Your task to perform on an android device: turn on improve location accuracy Image 0: 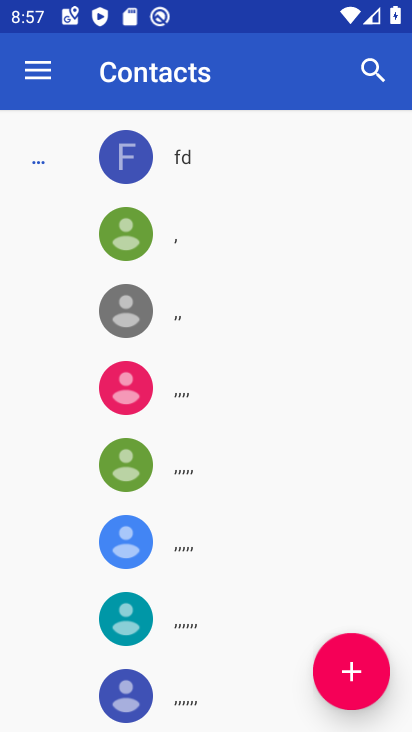
Step 0: press home button
Your task to perform on an android device: turn on improve location accuracy Image 1: 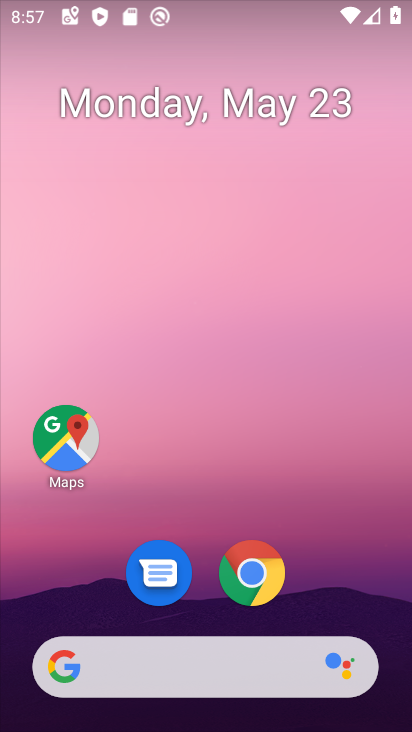
Step 1: drag from (375, 596) to (354, 206)
Your task to perform on an android device: turn on improve location accuracy Image 2: 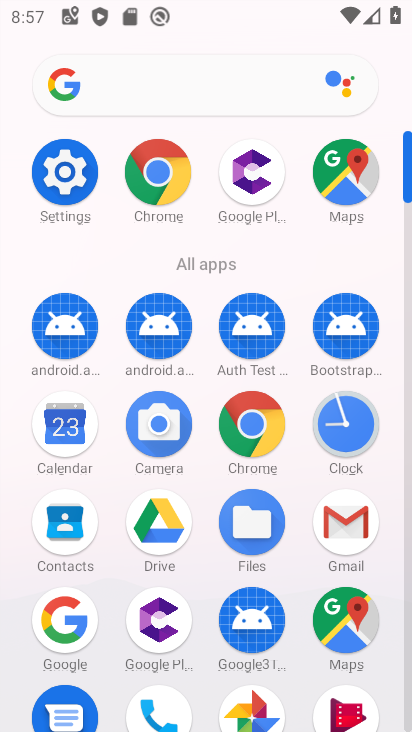
Step 2: click (66, 191)
Your task to perform on an android device: turn on improve location accuracy Image 3: 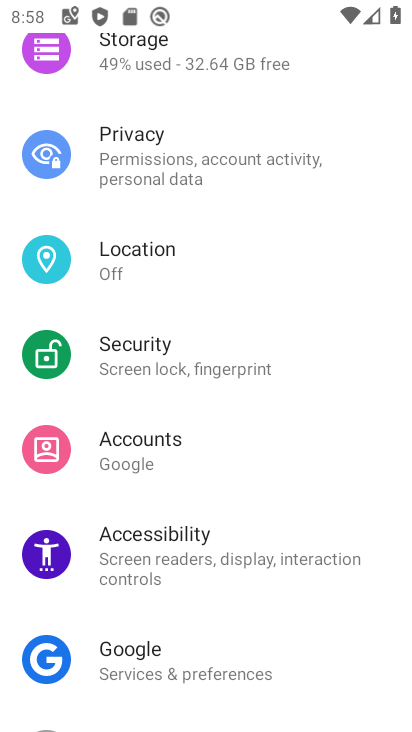
Step 3: drag from (355, 621) to (367, 546)
Your task to perform on an android device: turn on improve location accuracy Image 4: 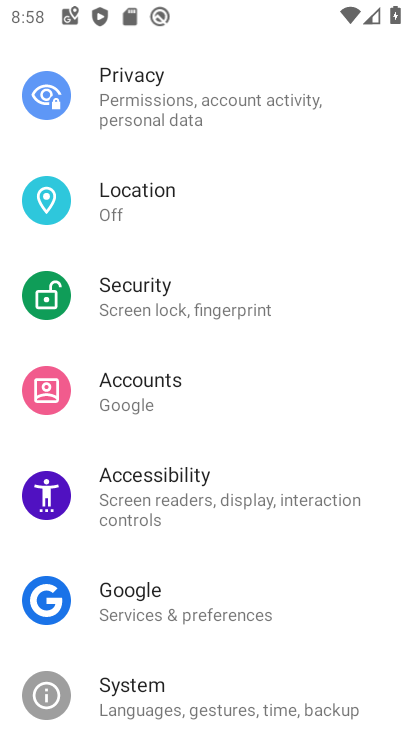
Step 4: drag from (371, 623) to (376, 537)
Your task to perform on an android device: turn on improve location accuracy Image 5: 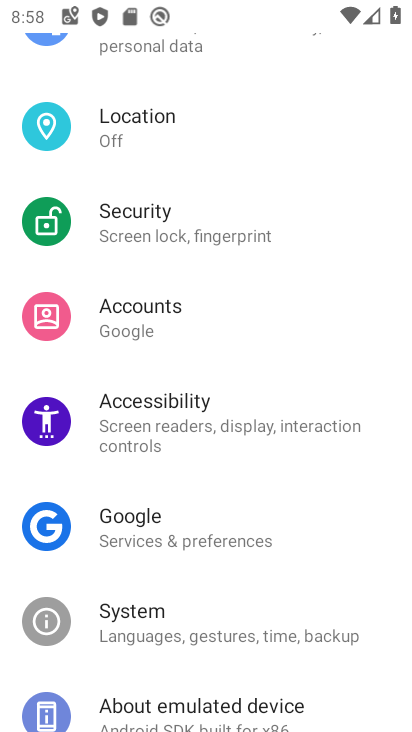
Step 5: drag from (348, 664) to (365, 563)
Your task to perform on an android device: turn on improve location accuracy Image 6: 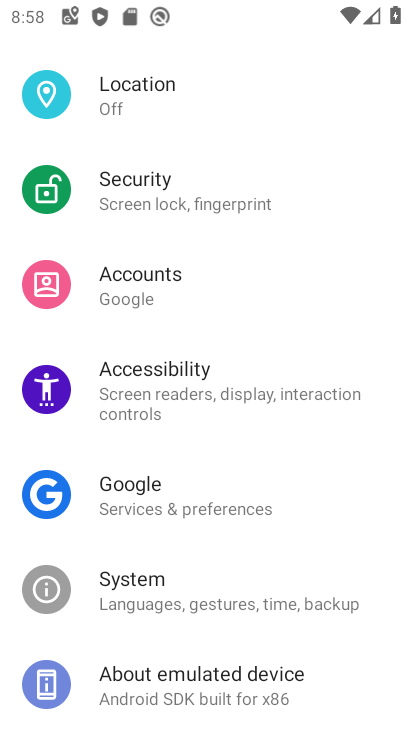
Step 6: drag from (358, 639) to (360, 547)
Your task to perform on an android device: turn on improve location accuracy Image 7: 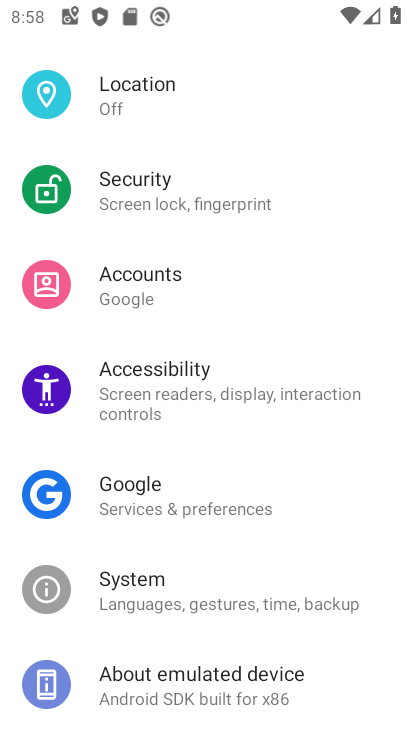
Step 7: drag from (358, 467) to (346, 544)
Your task to perform on an android device: turn on improve location accuracy Image 8: 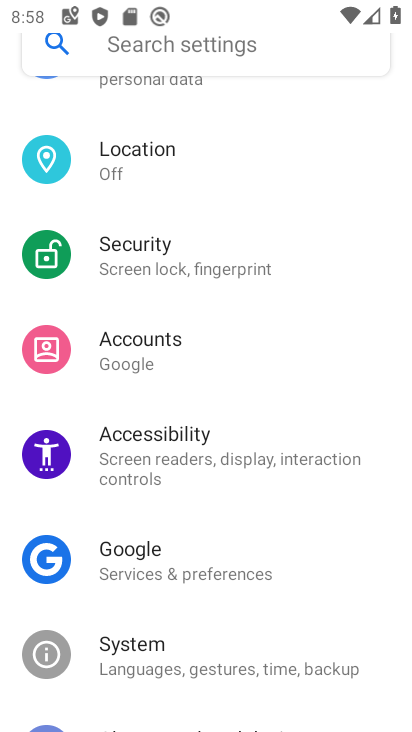
Step 8: drag from (366, 404) to (372, 472)
Your task to perform on an android device: turn on improve location accuracy Image 9: 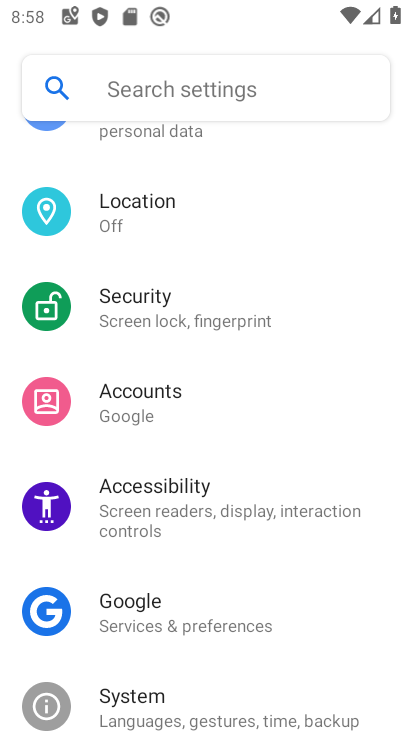
Step 9: drag from (368, 360) to (369, 461)
Your task to perform on an android device: turn on improve location accuracy Image 10: 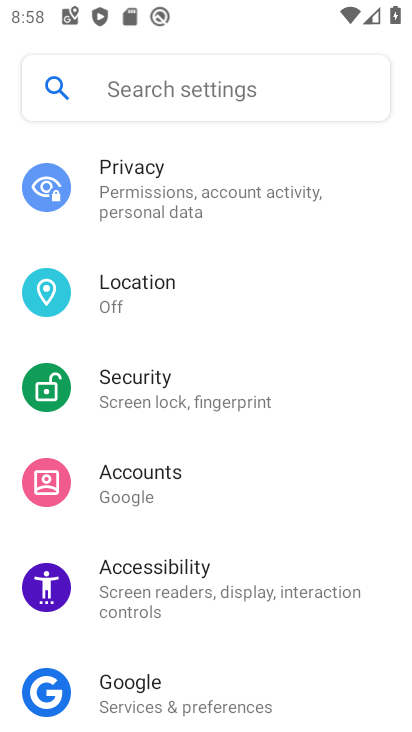
Step 10: drag from (361, 382) to (358, 470)
Your task to perform on an android device: turn on improve location accuracy Image 11: 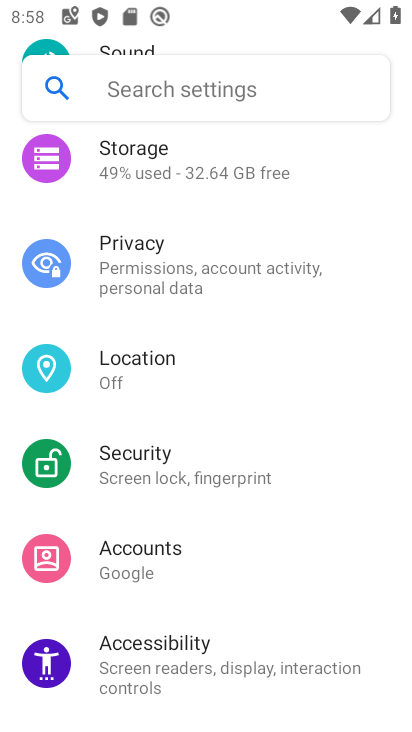
Step 11: drag from (357, 352) to (342, 475)
Your task to perform on an android device: turn on improve location accuracy Image 12: 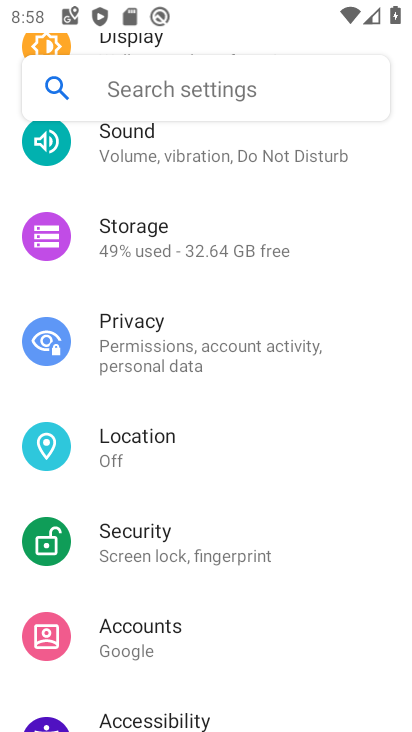
Step 12: drag from (341, 413) to (331, 486)
Your task to perform on an android device: turn on improve location accuracy Image 13: 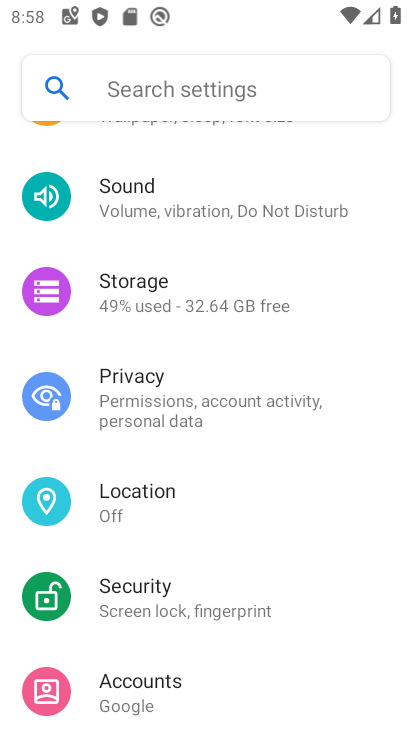
Step 13: drag from (330, 404) to (330, 502)
Your task to perform on an android device: turn on improve location accuracy Image 14: 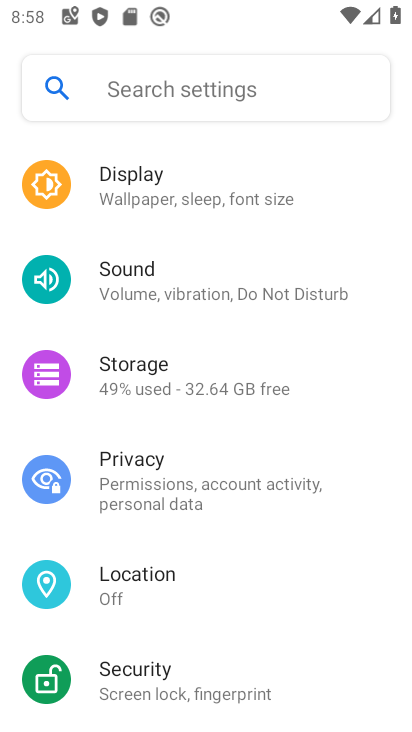
Step 14: drag from (343, 570) to (346, 445)
Your task to perform on an android device: turn on improve location accuracy Image 15: 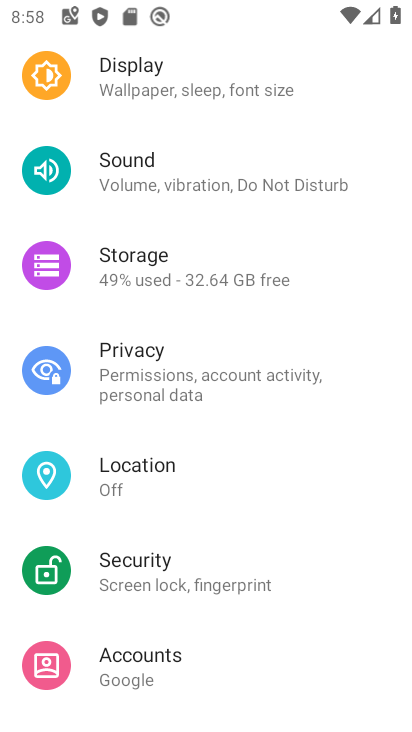
Step 15: click (182, 477)
Your task to perform on an android device: turn on improve location accuracy Image 16: 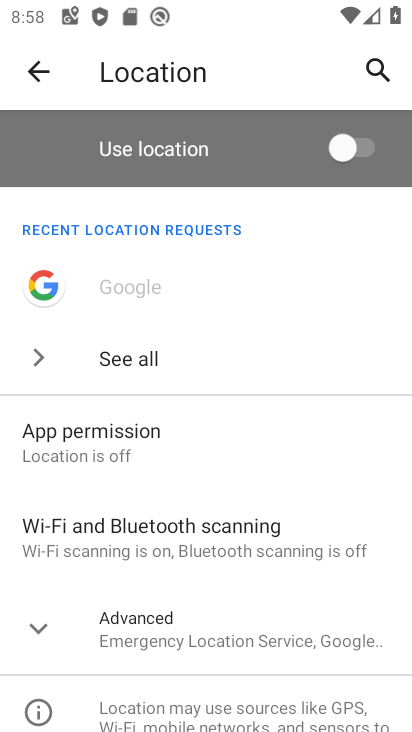
Step 16: drag from (267, 564) to (275, 377)
Your task to perform on an android device: turn on improve location accuracy Image 17: 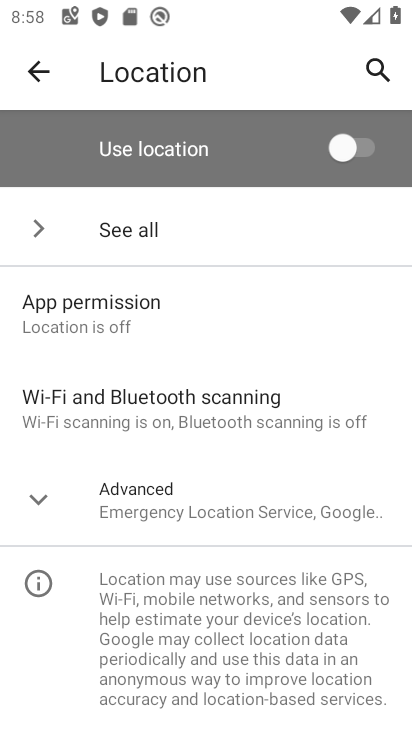
Step 17: click (272, 508)
Your task to perform on an android device: turn on improve location accuracy Image 18: 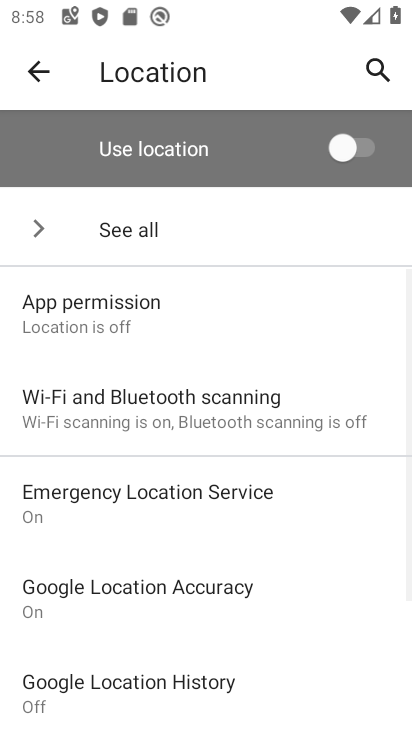
Step 18: drag from (286, 602) to (296, 488)
Your task to perform on an android device: turn on improve location accuracy Image 19: 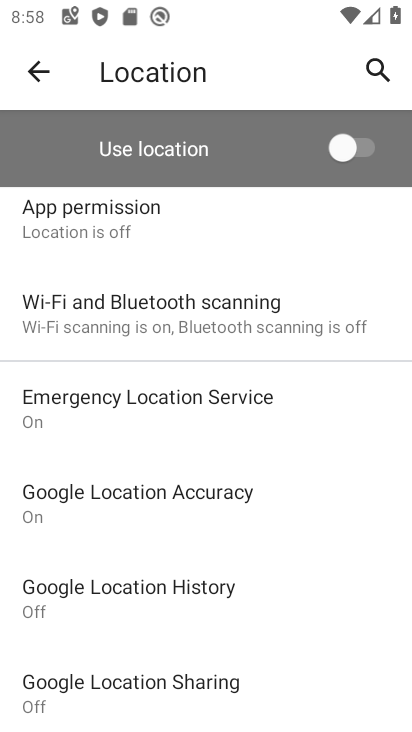
Step 19: drag from (310, 611) to (324, 514)
Your task to perform on an android device: turn on improve location accuracy Image 20: 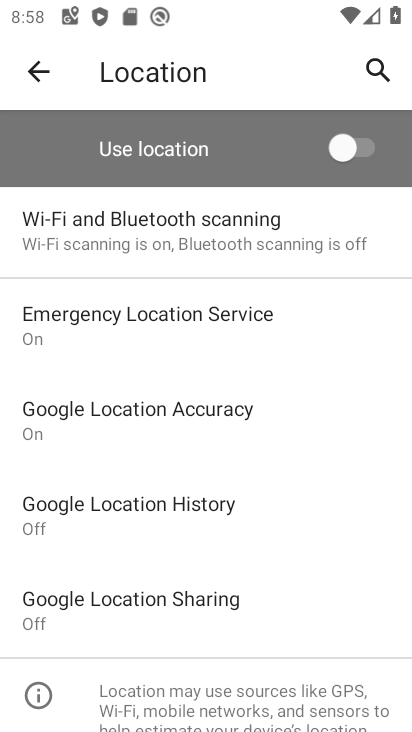
Step 20: drag from (308, 593) to (316, 530)
Your task to perform on an android device: turn on improve location accuracy Image 21: 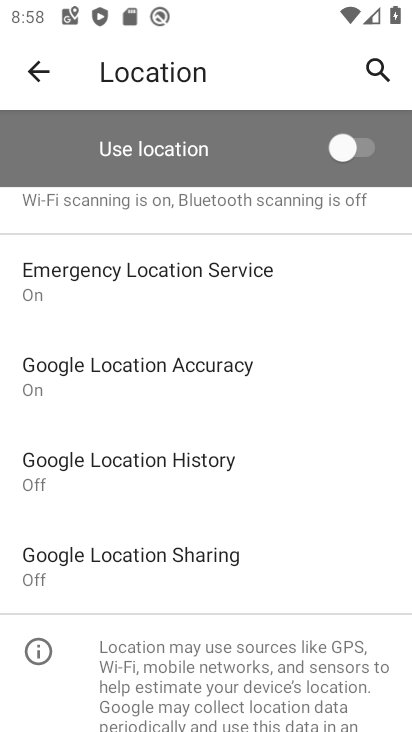
Step 21: click (207, 372)
Your task to perform on an android device: turn on improve location accuracy Image 22: 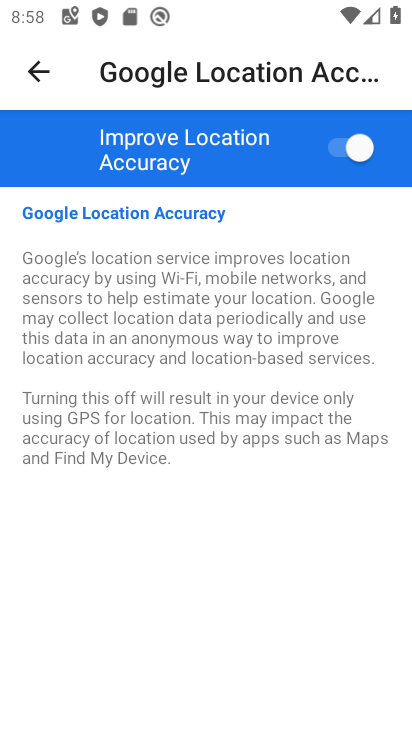
Step 22: task complete